Your task to perform on an android device: clear all cookies in the chrome app Image 0: 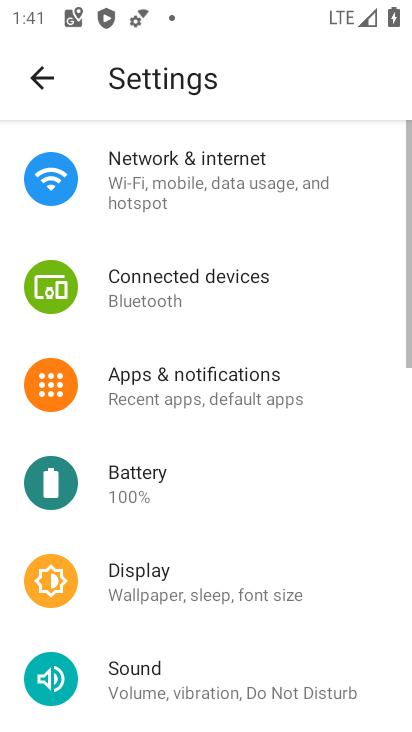
Step 0: press home button
Your task to perform on an android device: clear all cookies in the chrome app Image 1: 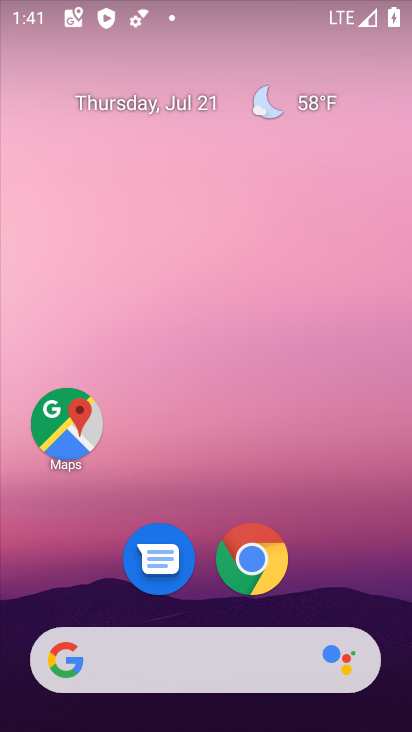
Step 1: drag from (370, 577) to (379, 185)
Your task to perform on an android device: clear all cookies in the chrome app Image 2: 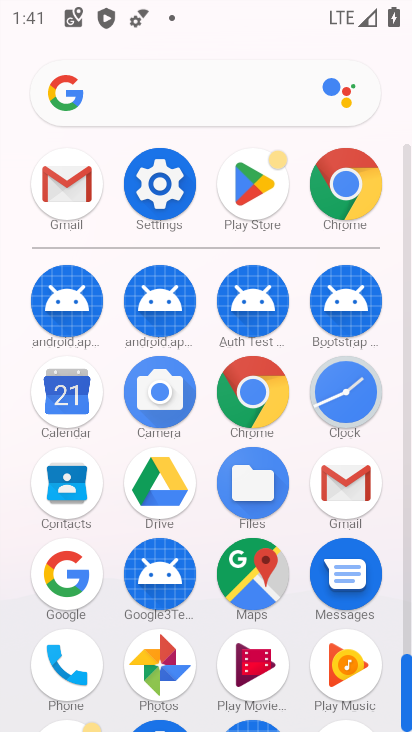
Step 2: click (250, 402)
Your task to perform on an android device: clear all cookies in the chrome app Image 3: 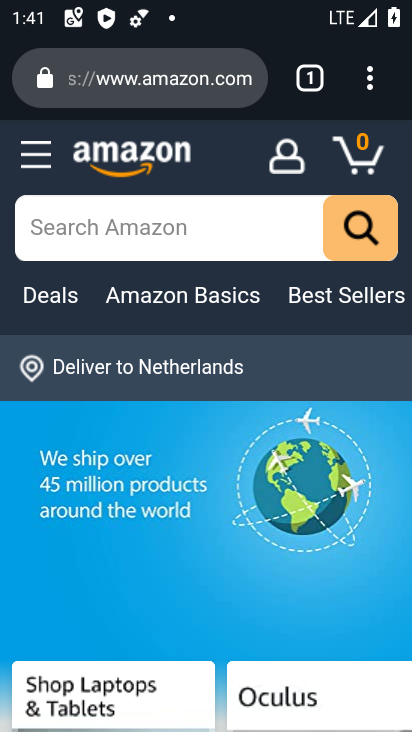
Step 3: click (370, 86)
Your task to perform on an android device: clear all cookies in the chrome app Image 4: 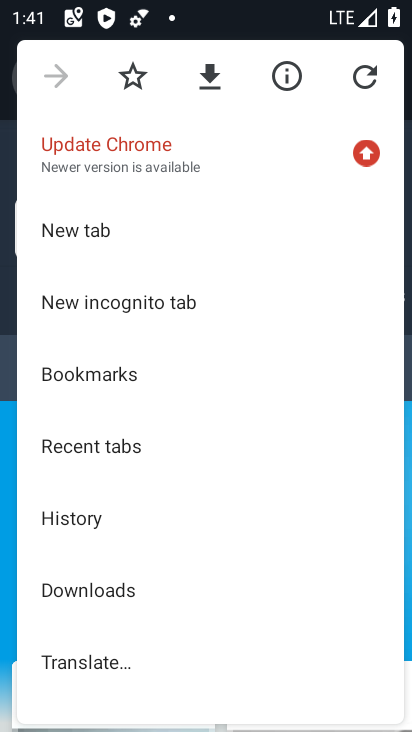
Step 4: drag from (254, 511) to (256, 474)
Your task to perform on an android device: clear all cookies in the chrome app Image 5: 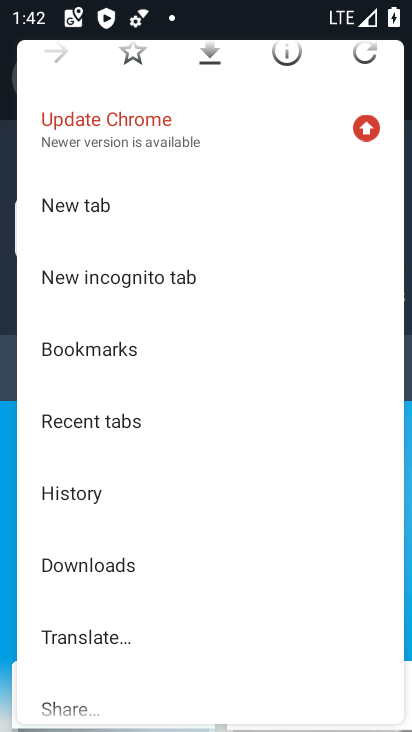
Step 5: drag from (262, 543) to (274, 497)
Your task to perform on an android device: clear all cookies in the chrome app Image 6: 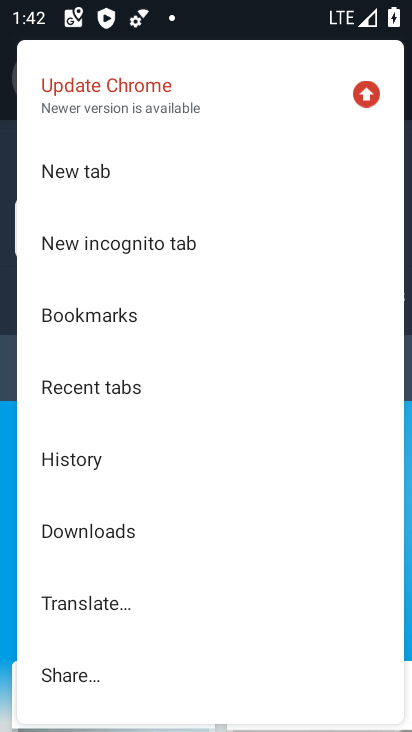
Step 6: drag from (294, 525) to (301, 483)
Your task to perform on an android device: clear all cookies in the chrome app Image 7: 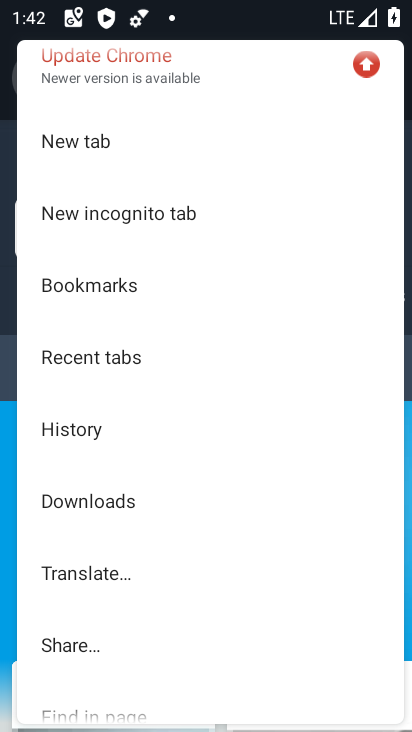
Step 7: drag from (298, 518) to (298, 460)
Your task to perform on an android device: clear all cookies in the chrome app Image 8: 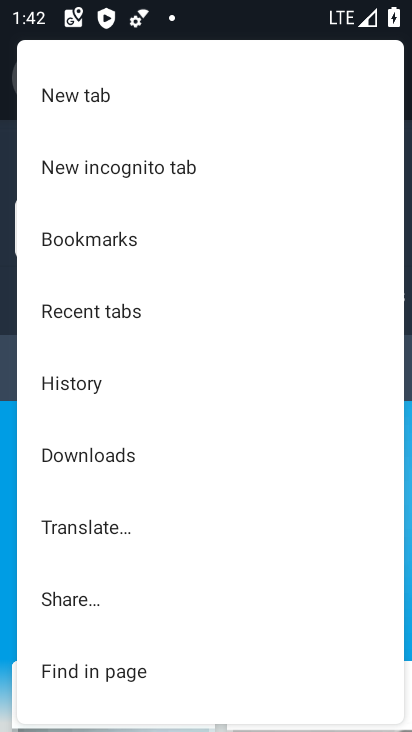
Step 8: drag from (293, 523) to (304, 457)
Your task to perform on an android device: clear all cookies in the chrome app Image 9: 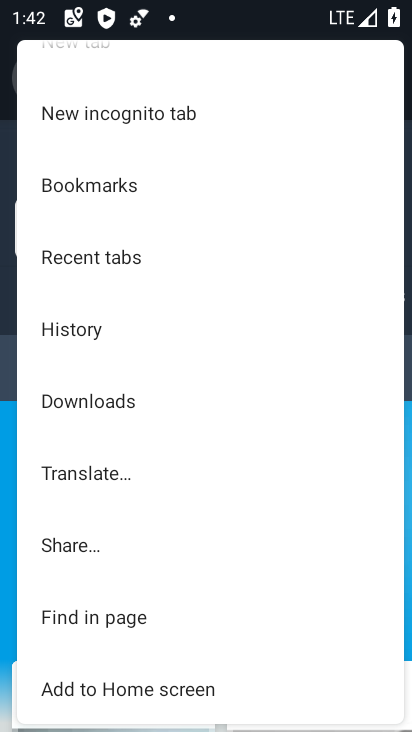
Step 9: drag from (285, 528) to (288, 468)
Your task to perform on an android device: clear all cookies in the chrome app Image 10: 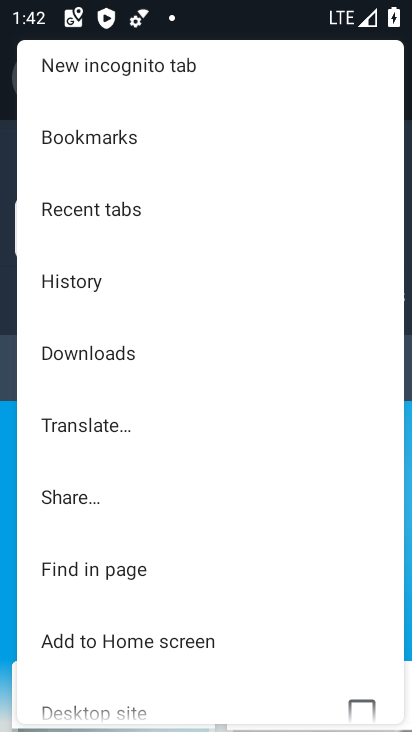
Step 10: drag from (281, 531) to (283, 461)
Your task to perform on an android device: clear all cookies in the chrome app Image 11: 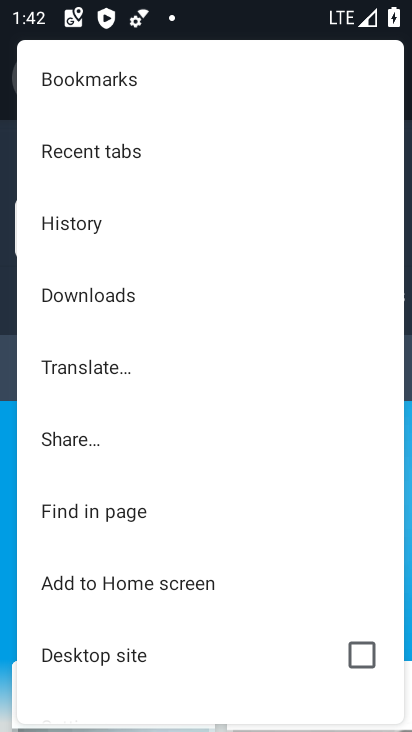
Step 11: drag from (275, 544) to (274, 426)
Your task to perform on an android device: clear all cookies in the chrome app Image 12: 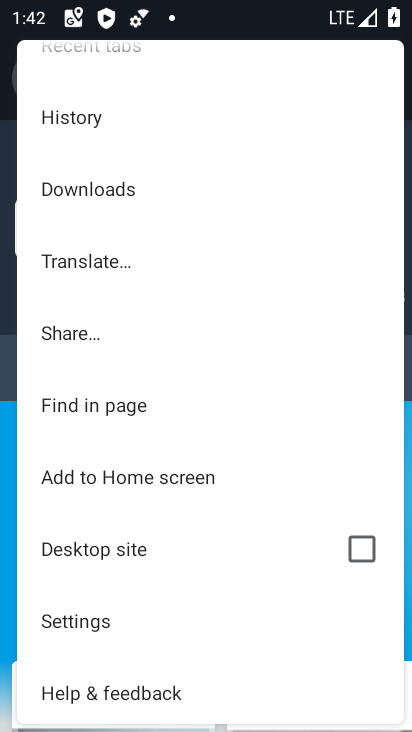
Step 12: click (260, 619)
Your task to perform on an android device: clear all cookies in the chrome app Image 13: 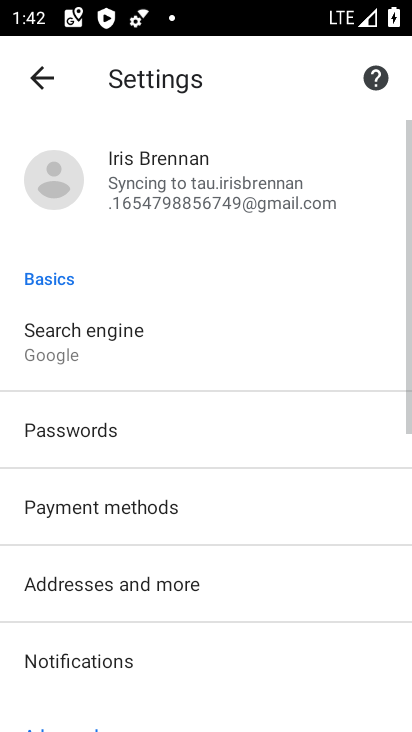
Step 13: drag from (260, 619) to (260, 562)
Your task to perform on an android device: clear all cookies in the chrome app Image 14: 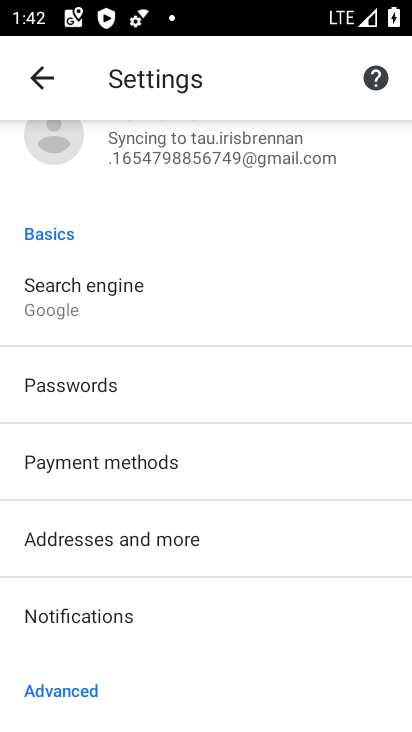
Step 14: drag from (255, 593) to (259, 531)
Your task to perform on an android device: clear all cookies in the chrome app Image 15: 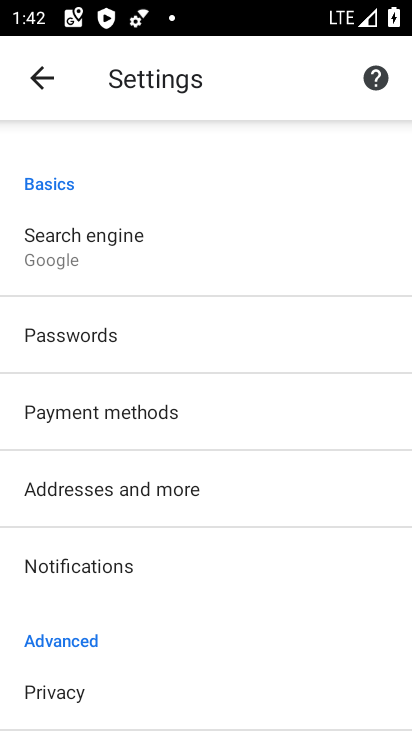
Step 15: drag from (264, 591) to (264, 535)
Your task to perform on an android device: clear all cookies in the chrome app Image 16: 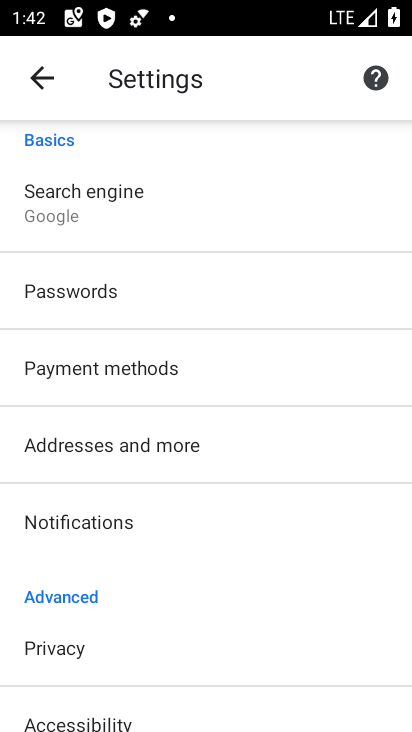
Step 16: drag from (263, 608) to (263, 521)
Your task to perform on an android device: clear all cookies in the chrome app Image 17: 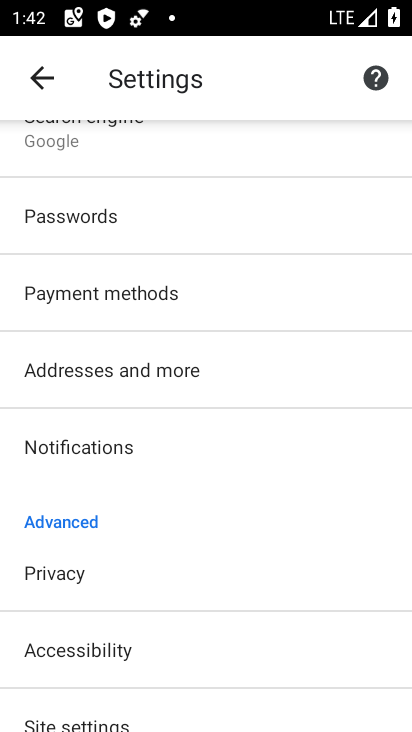
Step 17: drag from (269, 615) to (272, 540)
Your task to perform on an android device: clear all cookies in the chrome app Image 18: 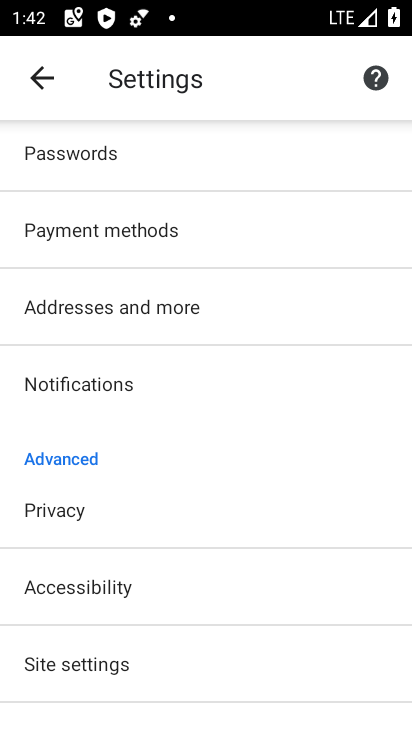
Step 18: drag from (279, 615) to (280, 536)
Your task to perform on an android device: clear all cookies in the chrome app Image 19: 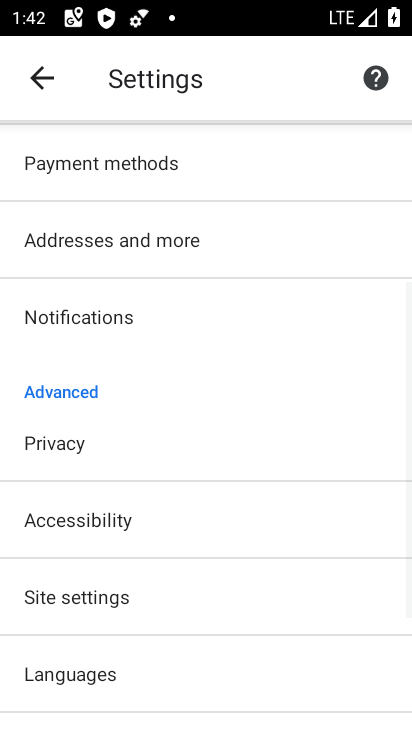
Step 19: click (253, 458)
Your task to perform on an android device: clear all cookies in the chrome app Image 20: 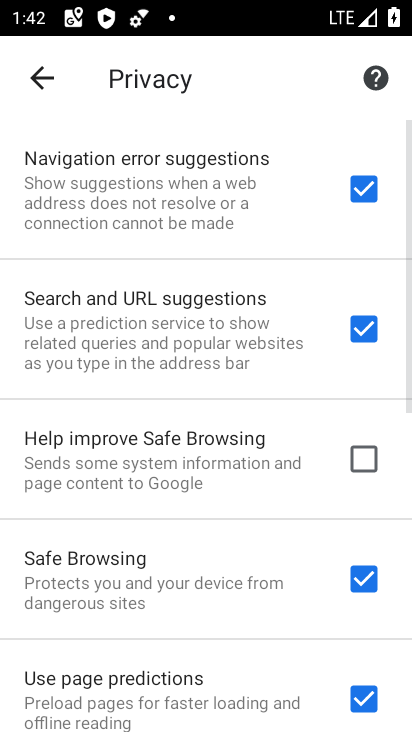
Step 20: drag from (263, 536) to (275, 477)
Your task to perform on an android device: clear all cookies in the chrome app Image 21: 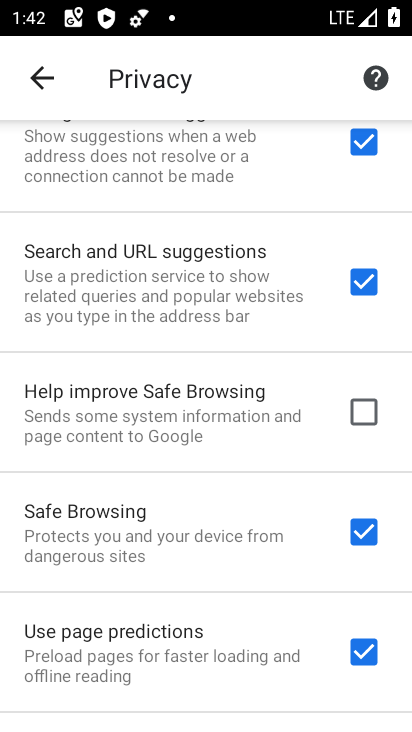
Step 21: drag from (287, 559) to (289, 477)
Your task to perform on an android device: clear all cookies in the chrome app Image 22: 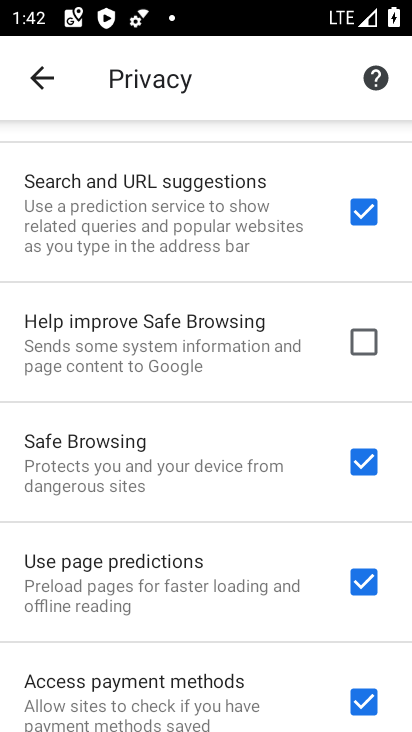
Step 22: drag from (286, 569) to (287, 478)
Your task to perform on an android device: clear all cookies in the chrome app Image 23: 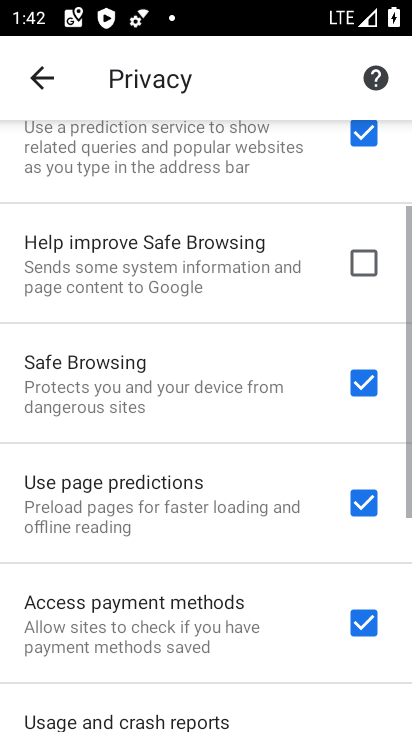
Step 23: drag from (287, 573) to (286, 502)
Your task to perform on an android device: clear all cookies in the chrome app Image 24: 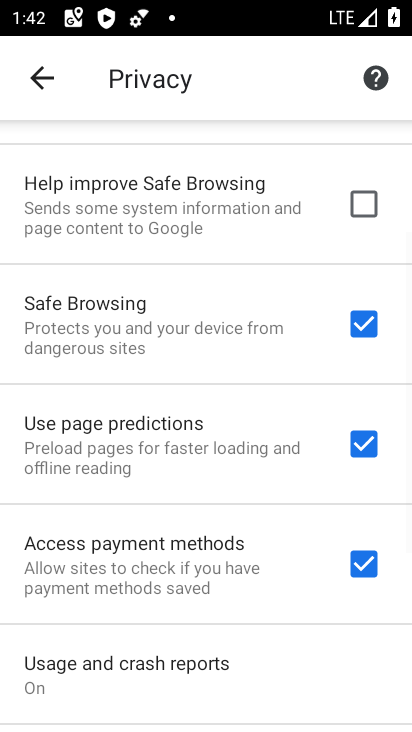
Step 24: drag from (287, 583) to (291, 503)
Your task to perform on an android device: clear all cookies in the chrome app Image 25: 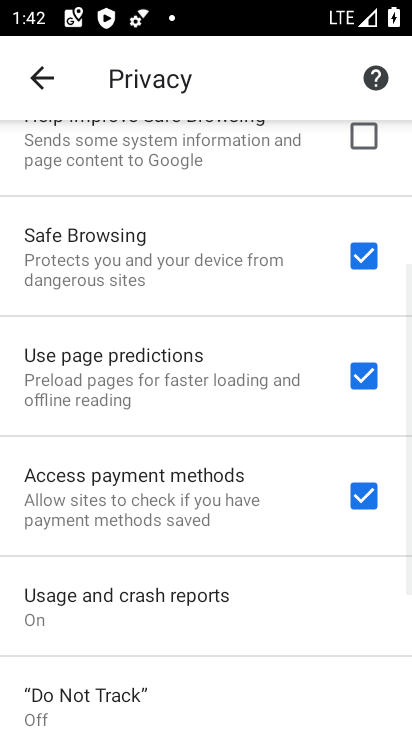
Step 25: drag from (283, 590) to (297, 491)
Your task to perform on an android device: clear all cookies in the chrome app Image 26: 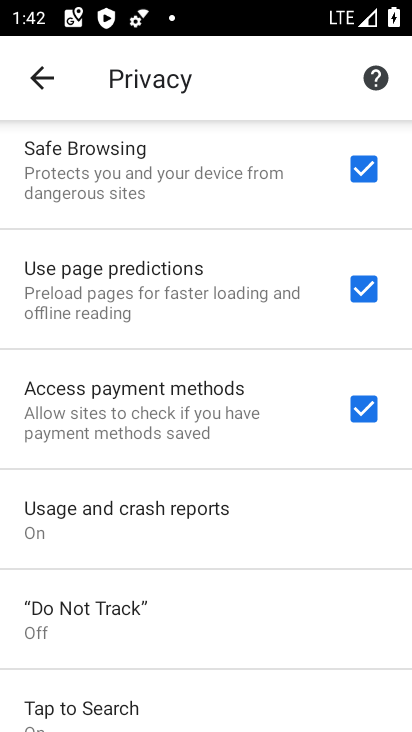
Step 26: drag from (287, 616) to (296, 508)
Your task to perform on an android device: clear all cookies in the chrome app Image 27: 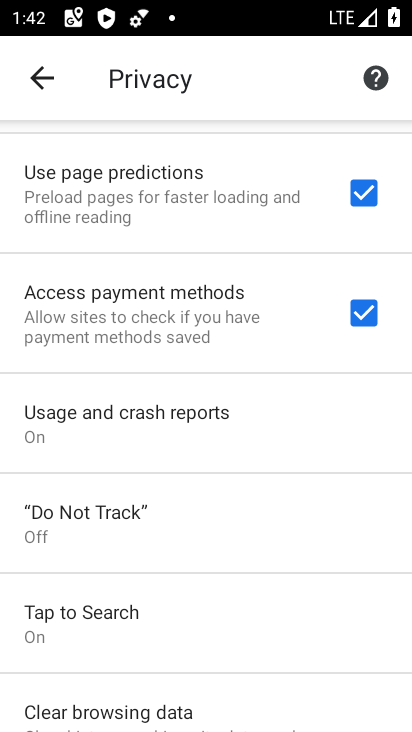
Step 27: drag from (282, 639) to (288, 525)
Your task to perform on an android device: clear all cookies in the chrome app Image 28: 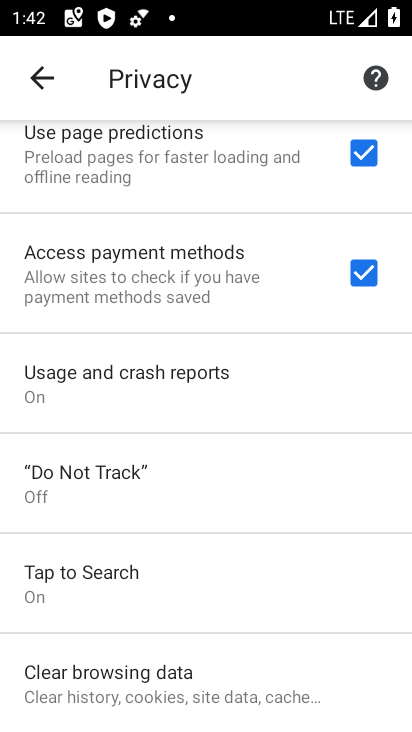
Step 28: click (273, 674)
Your task to perform on an android device: clear all cookies in the chrome app Image 29: 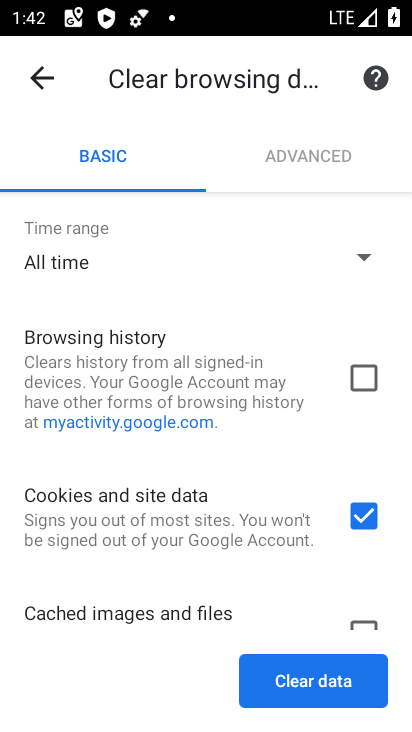
Step 29: click (360, 378)
Your task to perform on an android device: clear all cookies in the chrome app Image 30: 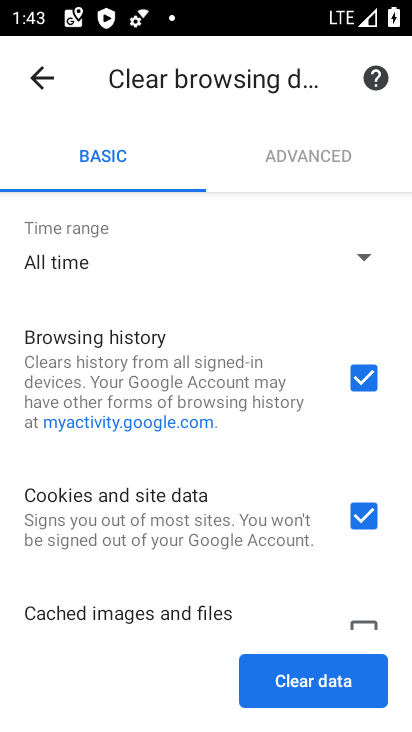
Step 30: click (363, 632)
Your task to perform on an android device: clear all cookies in the chrome app Image 31: 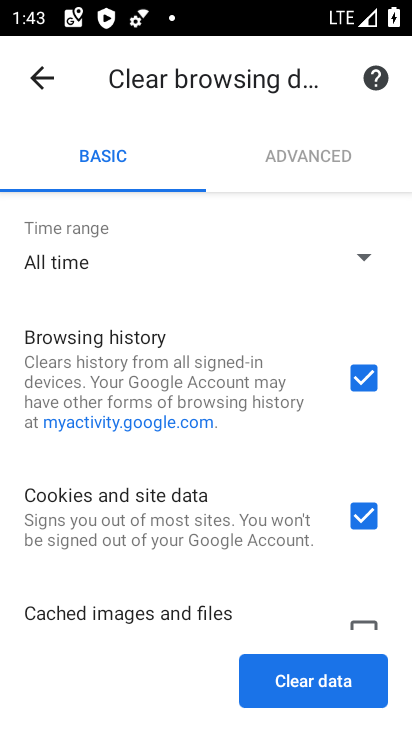
Step 31: click (363, 623)
Your task to perform on an android device: clear all cookies in the chrome app Image 32: 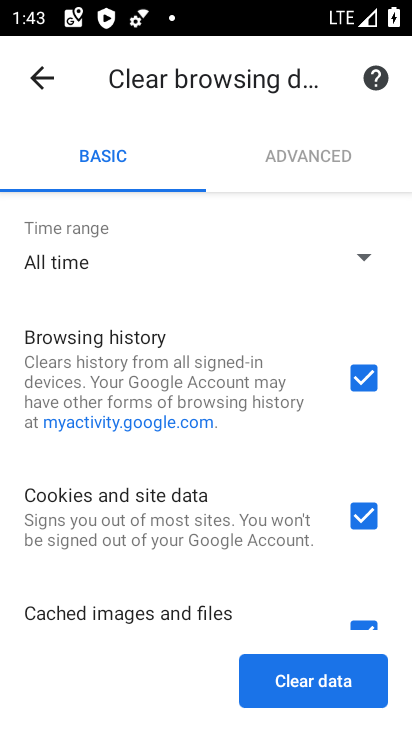
Step 32: click (329, 692)
Your task to perform on an android device: clear all cookies in the chrome app Image 33: 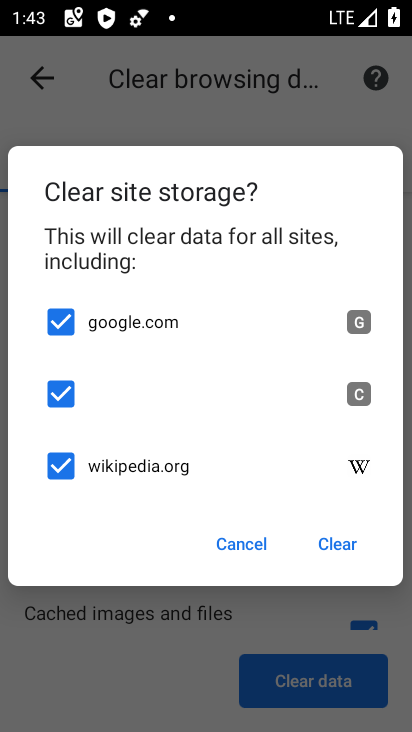
Step 33: click (334, 544)
Your task to perform on an android device: clear all cookies in the chrome app Image 34: 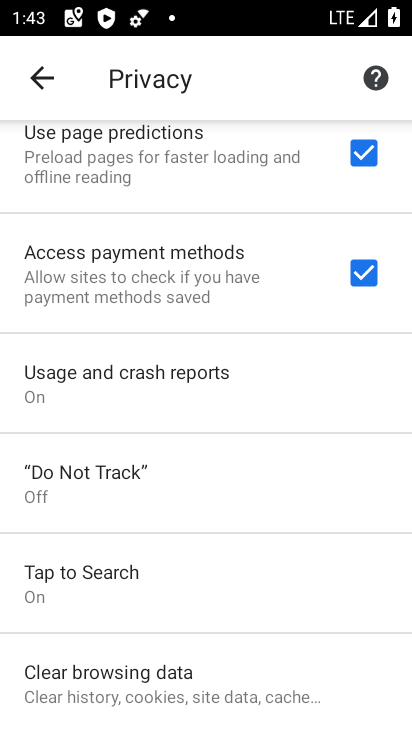
Step 34: task complete